Your task to perform on an android device: turn off sleep mode Image 0: 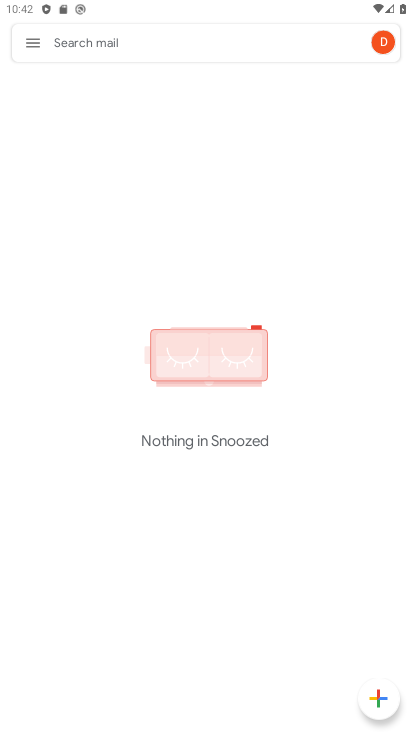
Step 0: press home button
Your task to perform on an android device: turn off sleep mode Image 1: 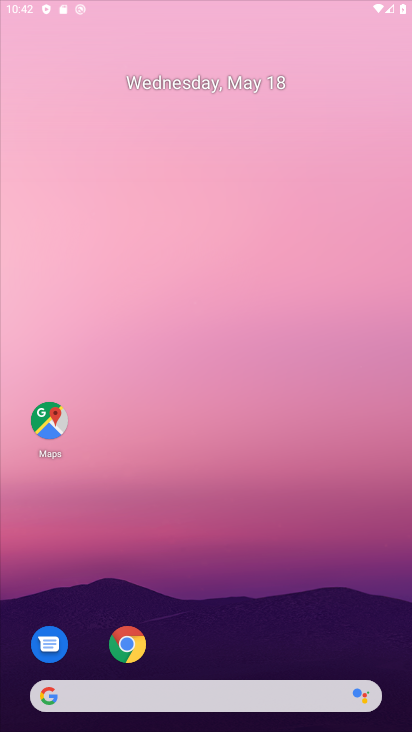
Step 1: drag from (370, 619) to (297, 63)
Your task to perform on an android device: turn off sleep mode Image 2: 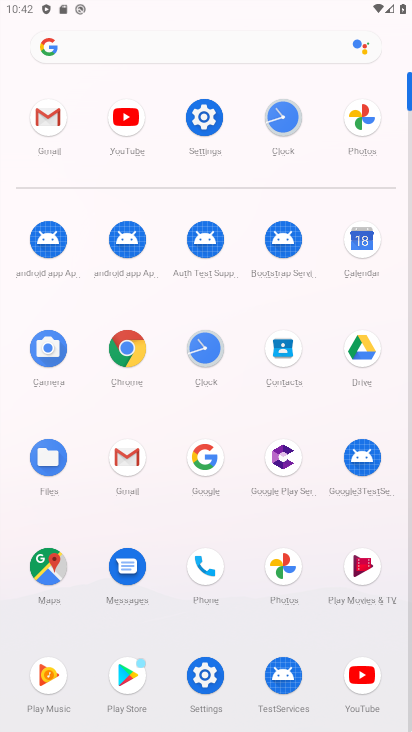
Step 2: click (202, 106)
Your task to perform on an android device: turn off sleep mode Image 3: 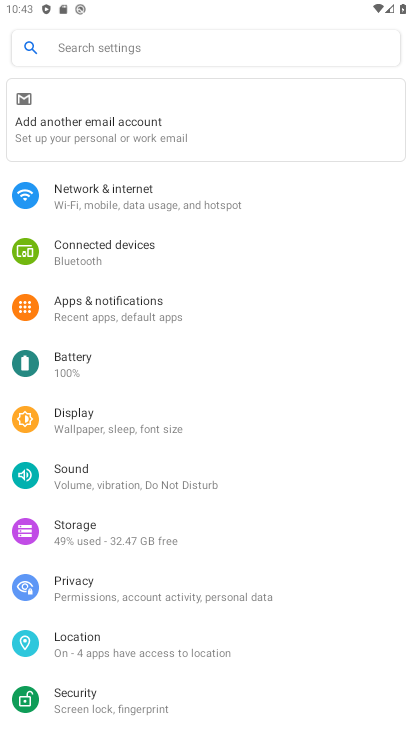
Step 3: task complete